Your task to perform on an android device: turn on wifi Image 0: 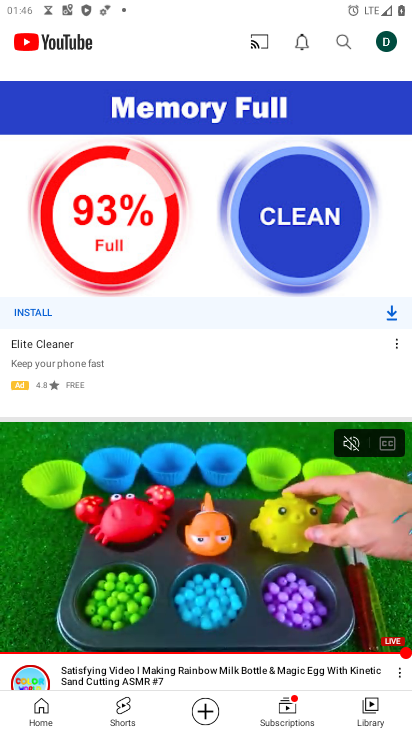
Step 0: press home button
Your task to perform on an android device: turn on wifi Image 1: 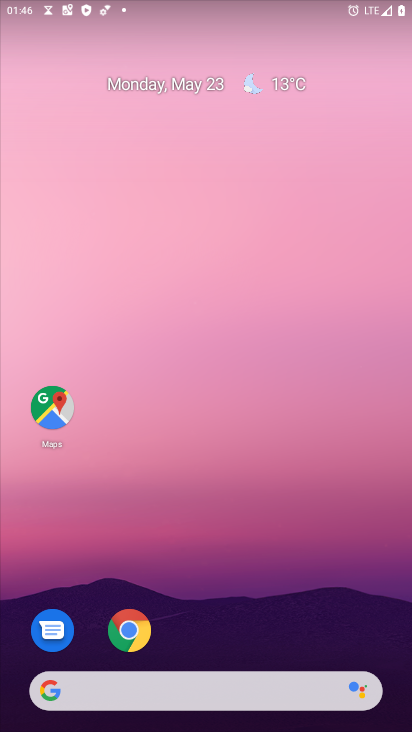
Step 1: drag from (268, 458) to (192, 65)
Your task to perform on an android device: turn on wifi Image 2: 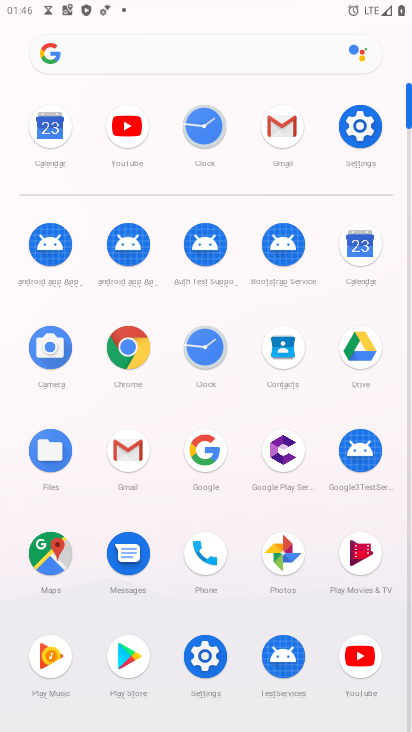
Step 2: click (364, 125)
Your task to perform on an android device: turn on wifi Image 3: 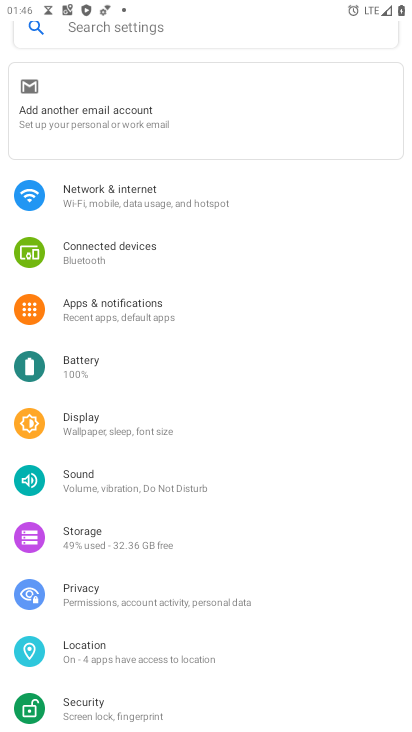
Step 3: click (203, 197)
Your task to perform on an android device: turn on wifi Image 4: 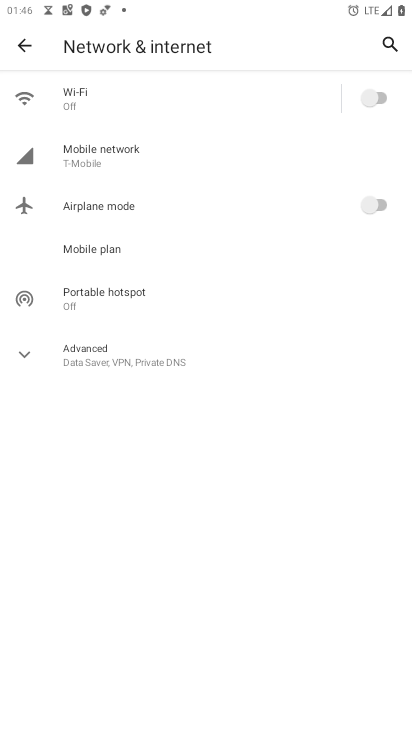
Step 4: click (369, 102)
Your task to perform on an android device: turn on wifi Image 5: 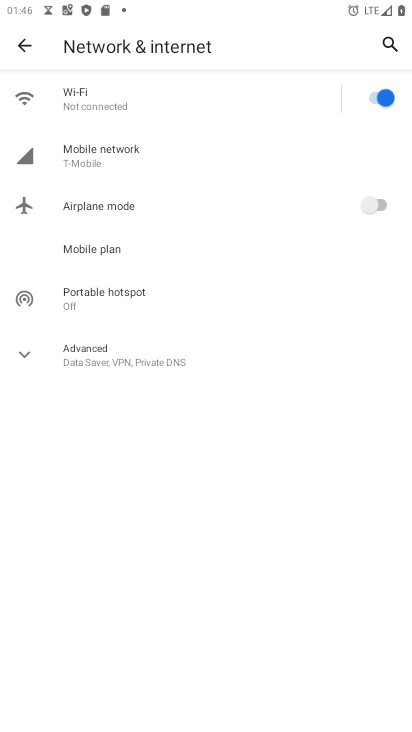
Step 5: task complete